Your task to perform on an android device: Open calendar and show me the second week of next month Image 0: 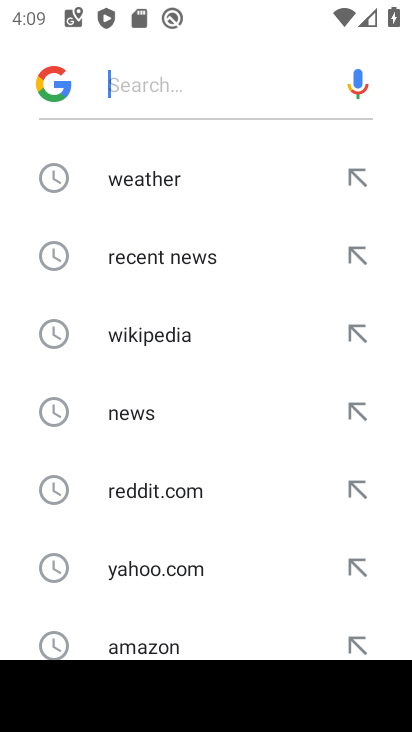
Step 0: press home button
Your task to perform on an android device: Open calendar and show me the second week of next month Image 1: 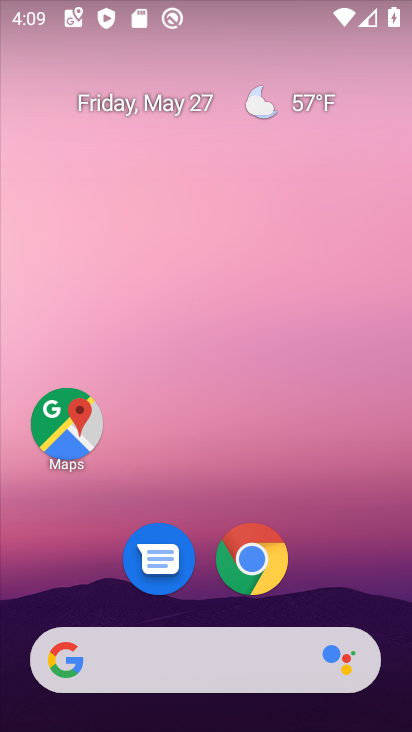
Step 1: drag from (314, 565) to (361, 130)
Your task to perform on an android device: Open calendar and show me the second week of next month Image 2: 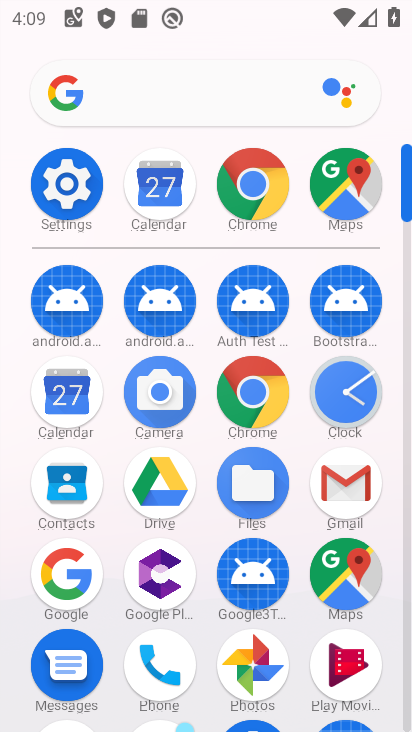
Step 2: click (90, 408)
Your task to perform on an android device: Open calendar and show me the second week of next month Image 3: 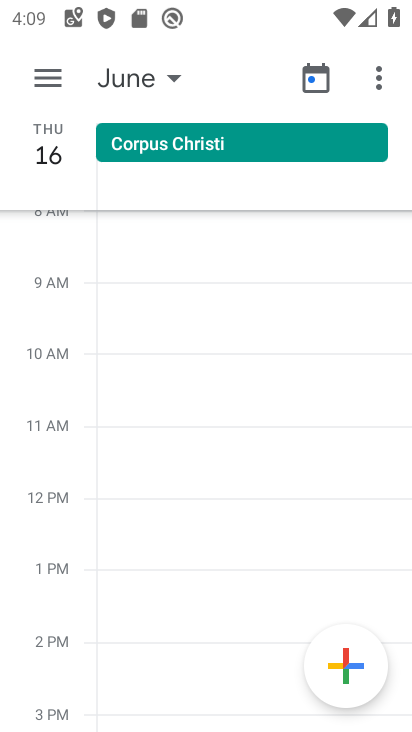
Step 3: task complete